Your task to perform on an android device: Open calendar and show me the first week of next month Image 0: 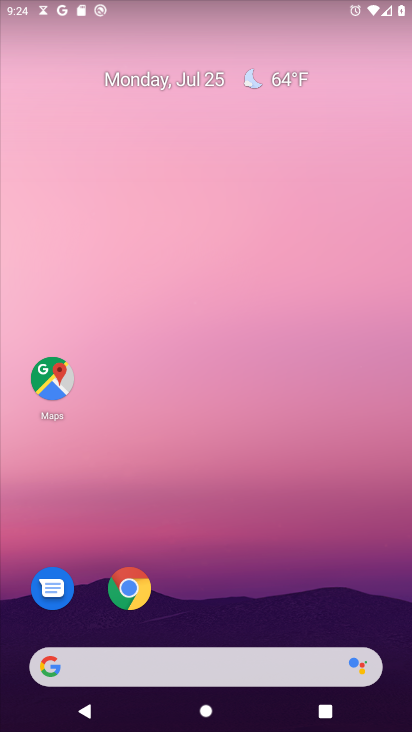
Step 0: drag from (226, 664) to (263, 267)
Your task to perform on an android device: Open calendar and show me the first week of next month Image 1: 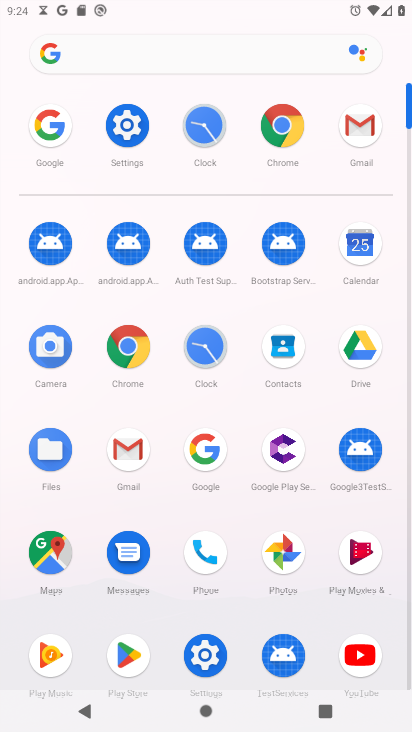
Step 1: click (355, 254)
Your task to perform on an android device: Open calendar and show me the first week of next month Image 2: 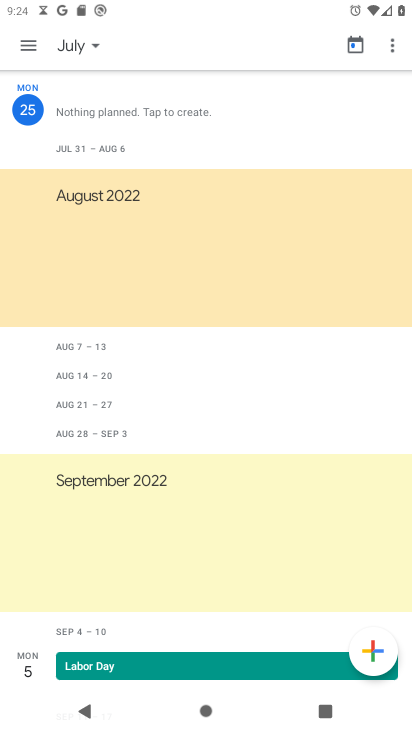
Step 2: click (32, 48)
Your task to perform on an android device: Open calendar and show me the first week of next month Image 3: 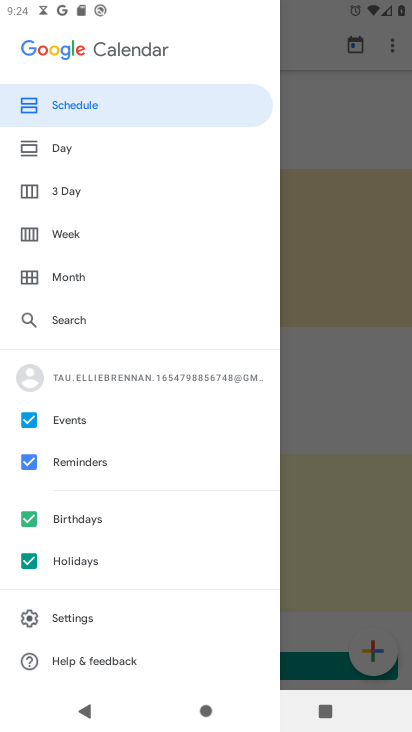
Step 3: click (106, 270)
Your task to perform on an android device: Open calendar and show me the first week of next month Image 4: 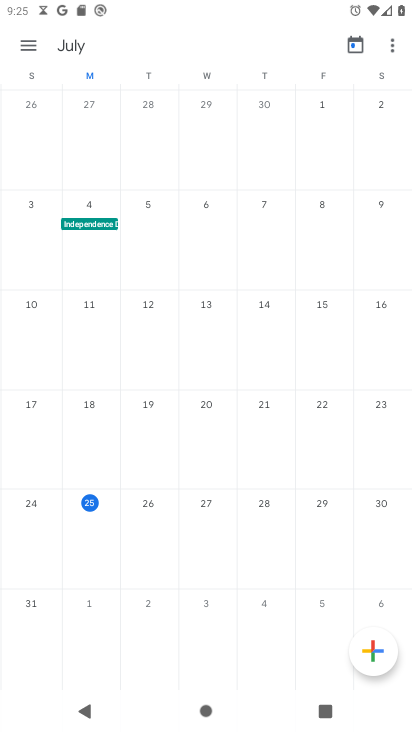
Step 4: task complete